Your task to perform on an android device: Open CNN.com Image 0: 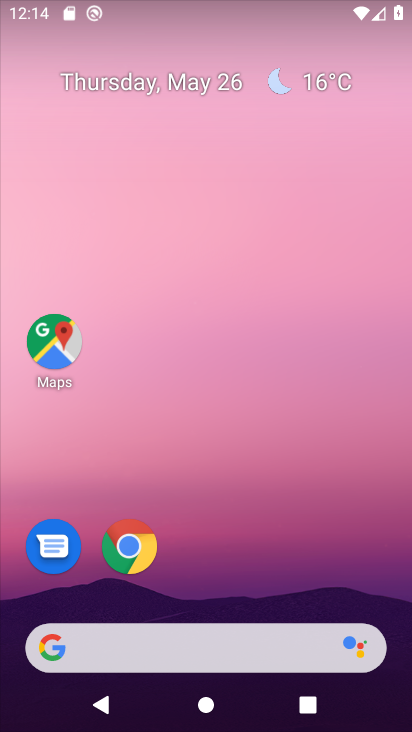
Step 0: click (127, 548)
Your task to perform on an android device: Open CNN.com Image 1: 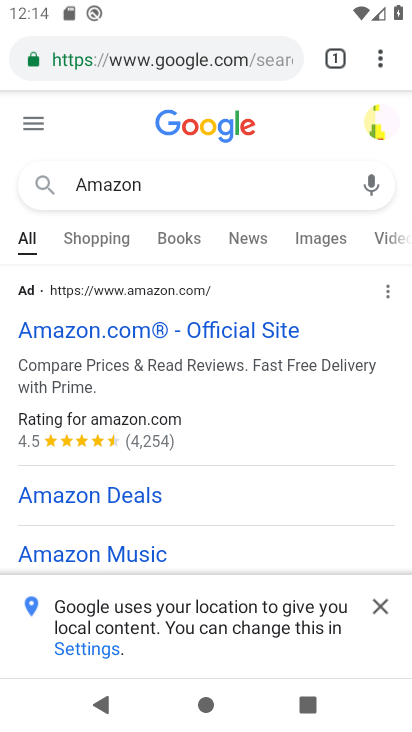
Step 1: click (111, 63)
Your task to perform on an android device: Open CNN.com Image 2: 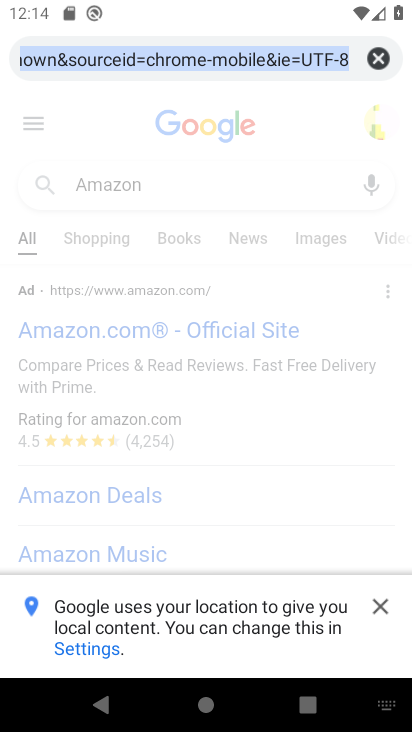
Step 2: type "CNN.com"
Your task to perform on an android device: Open CNN.com Image 3: 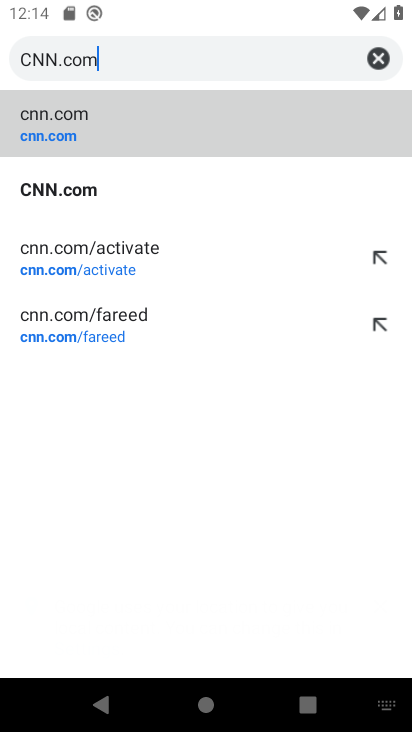
Step 3: click (94, 197)
Your task to perform on an android device: Open CNN.com Image 4: 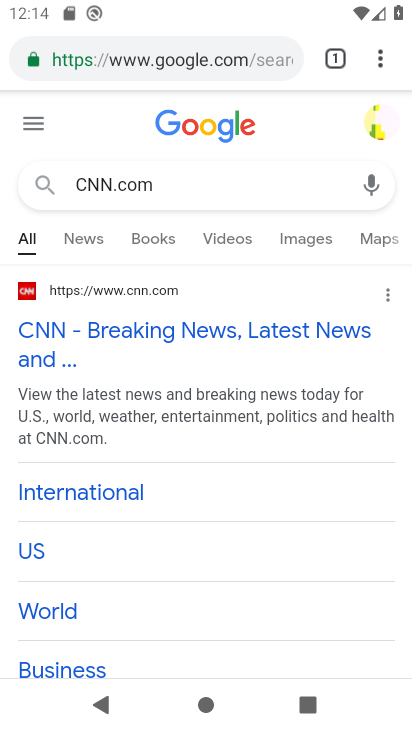
Step 4: task complete